Your task to perform on an android device: uninstall "VLC for Android" Image 0: 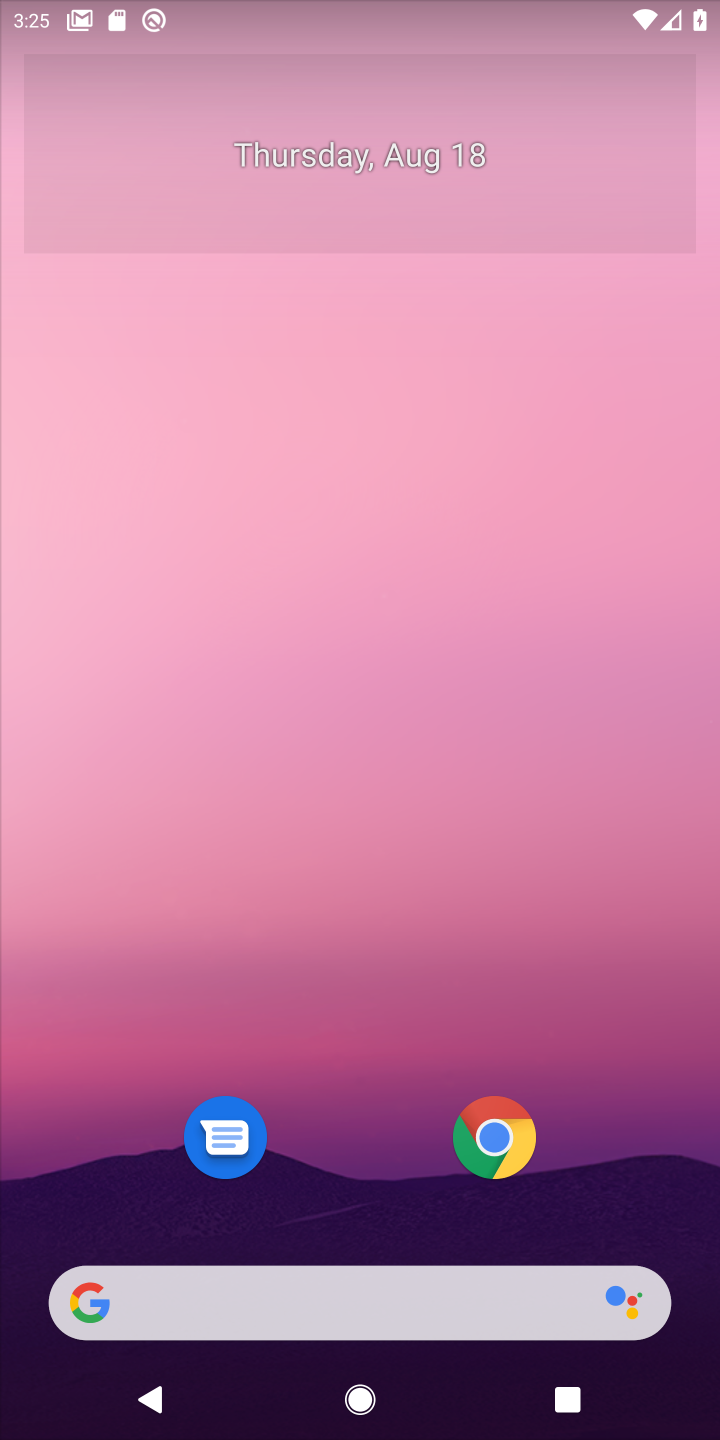
Step 0: drag from (355, 813) to (376, 163)
Your task to perform on an android device: uninstall "VLC for Android" Image 1: 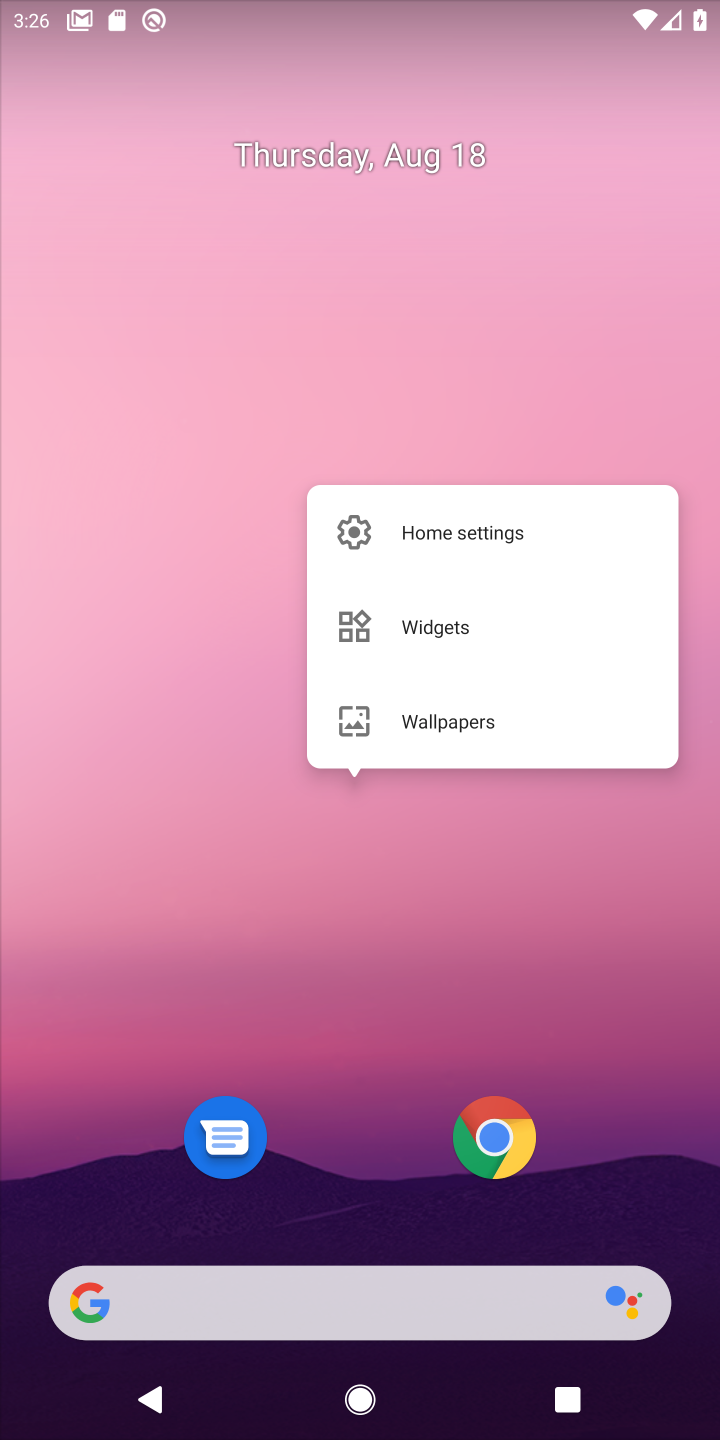
Step 1: drag from (369, 1125) to (369, 161)
Your task to perform on an android device: uninstall "VLC for Android" Image 2: 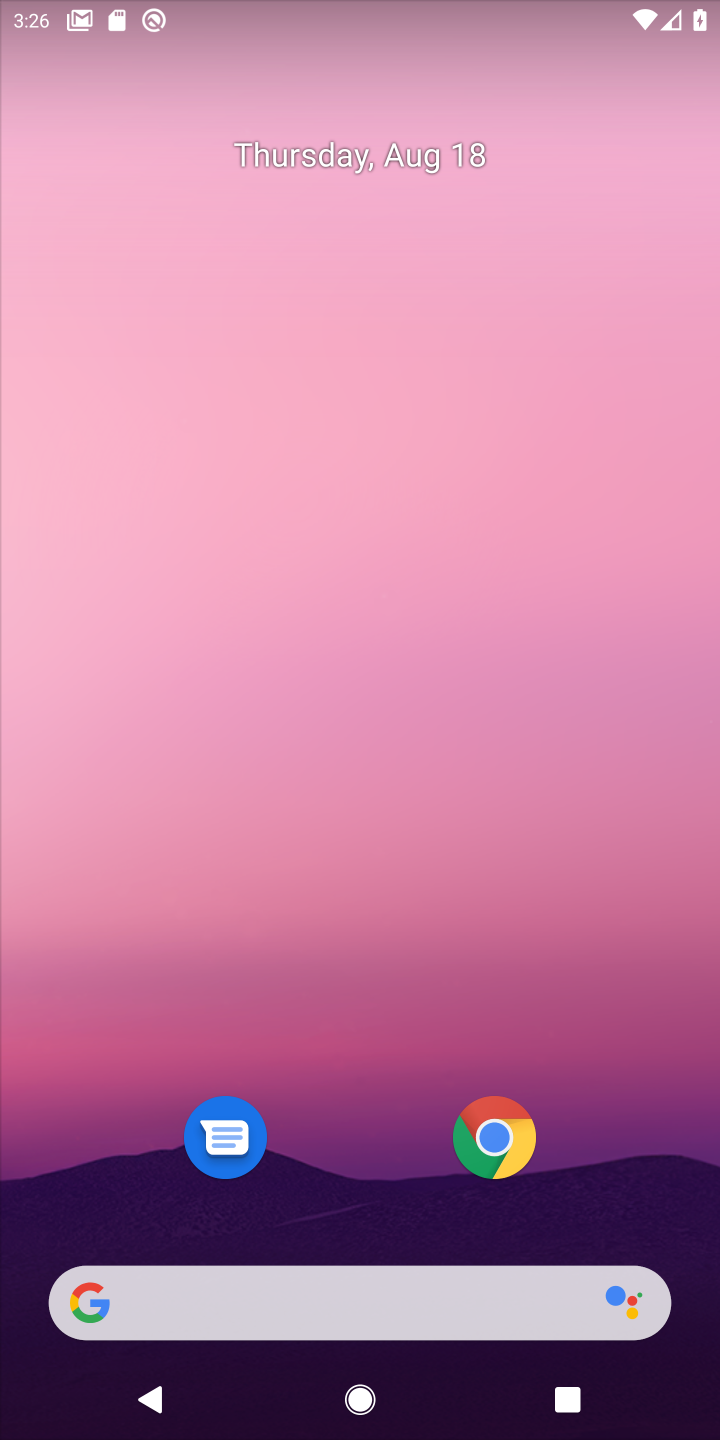
Step 2: drag from (378, 1073) to (417, 355)
Your task to perform on an android device: uninstall "VLC for Android" Image 3: 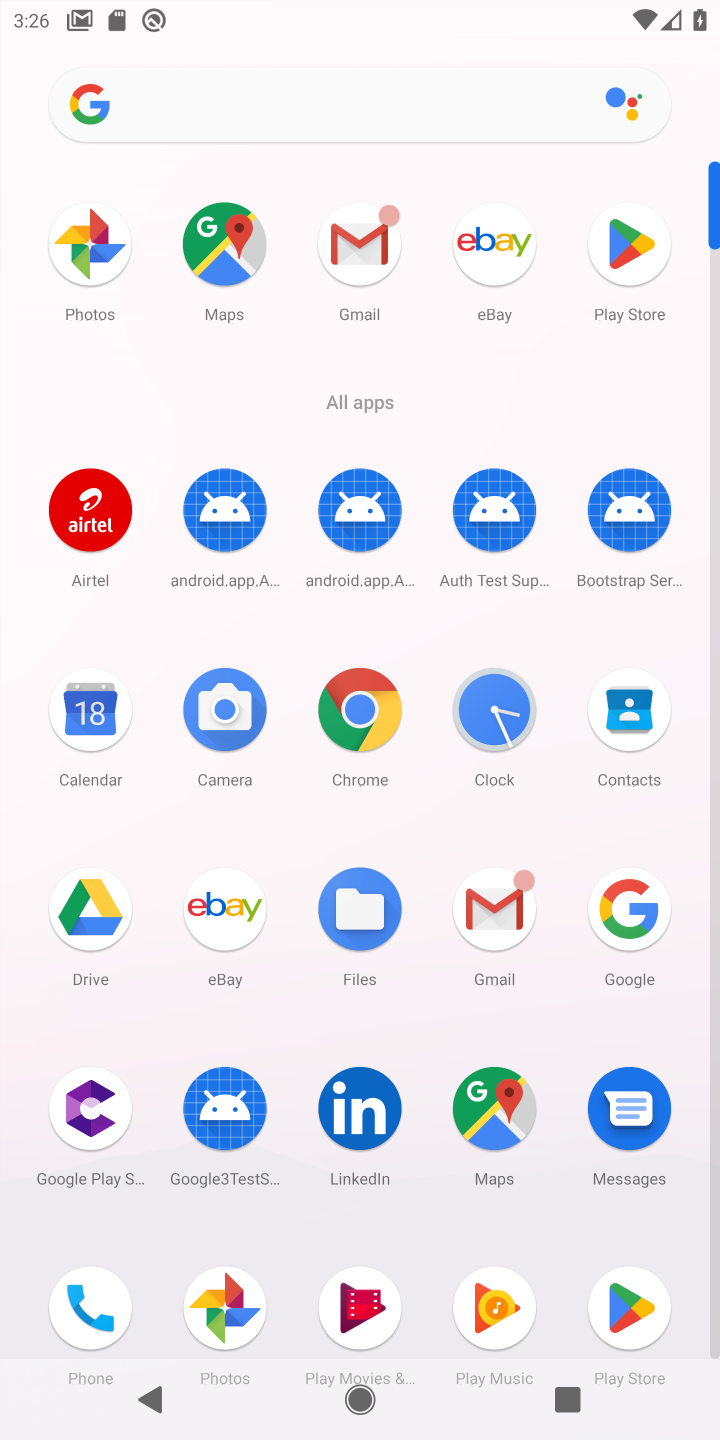
Step 3: click (614, 260)
Your task to perform on an android device: uninstall "VLC for Android" Image 4: 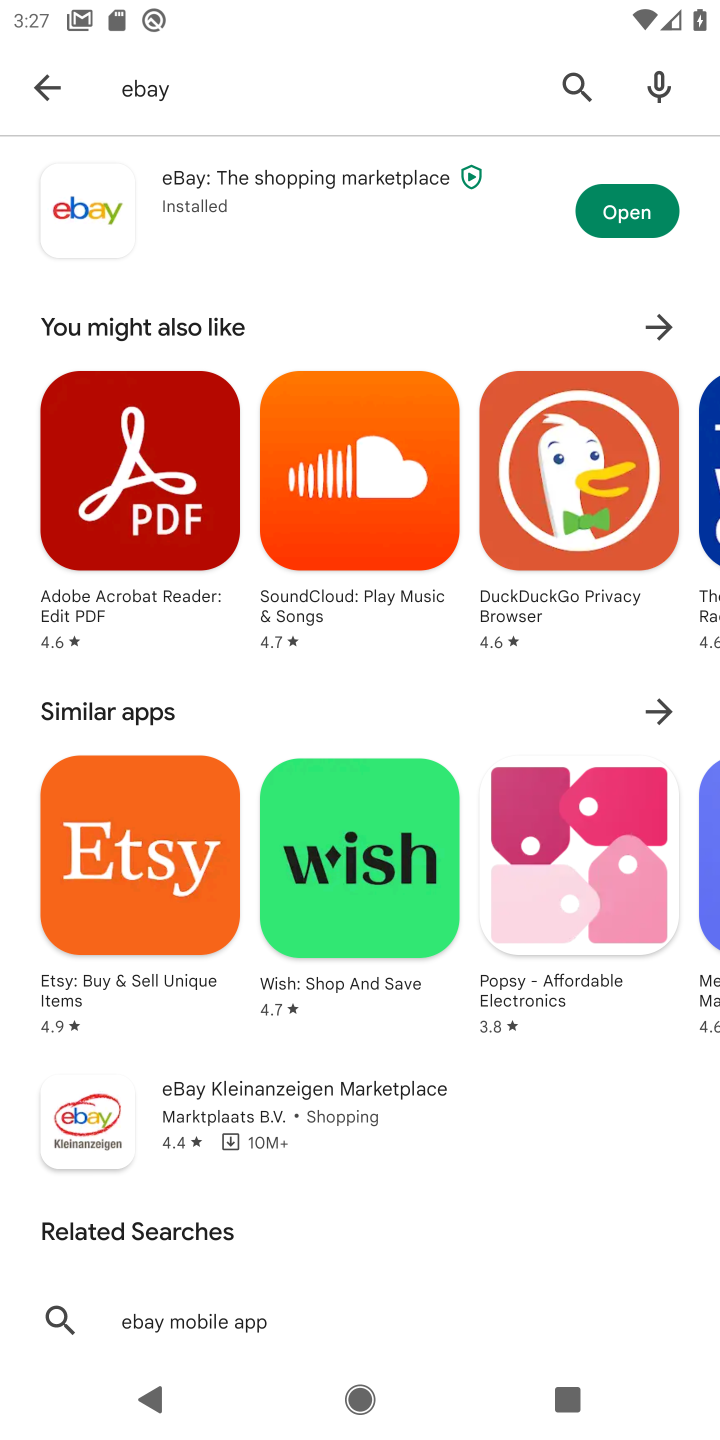
Step 4: click (53, 80)
Your task to perform on an android device: uninstall "VLC for Android" Image 5: 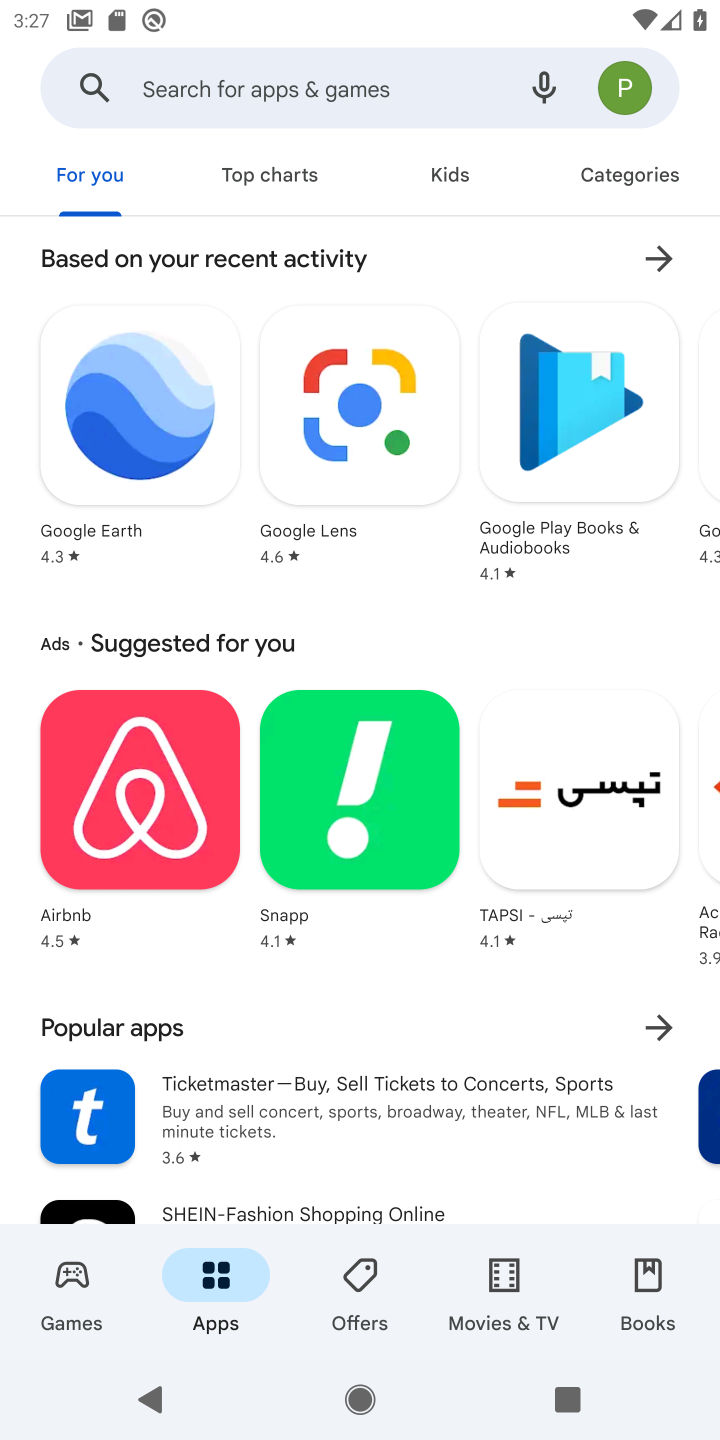
Step 5: click (246, 80)
Your task to perform on an android device: uninstall "VLC for Android" Image 6: 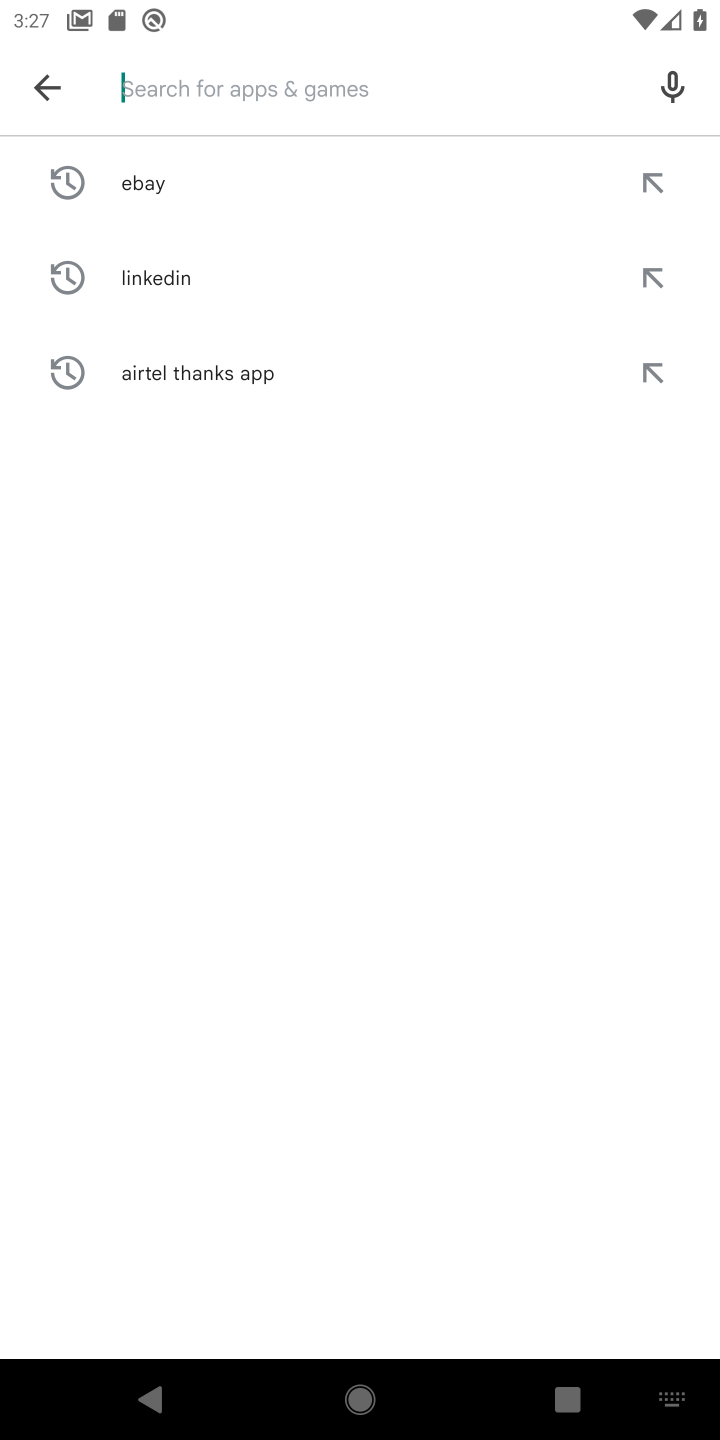
Step 6: type "VLC for Android"
Your task to perform on an android device: uninstall "VLC for Android" Image 7: 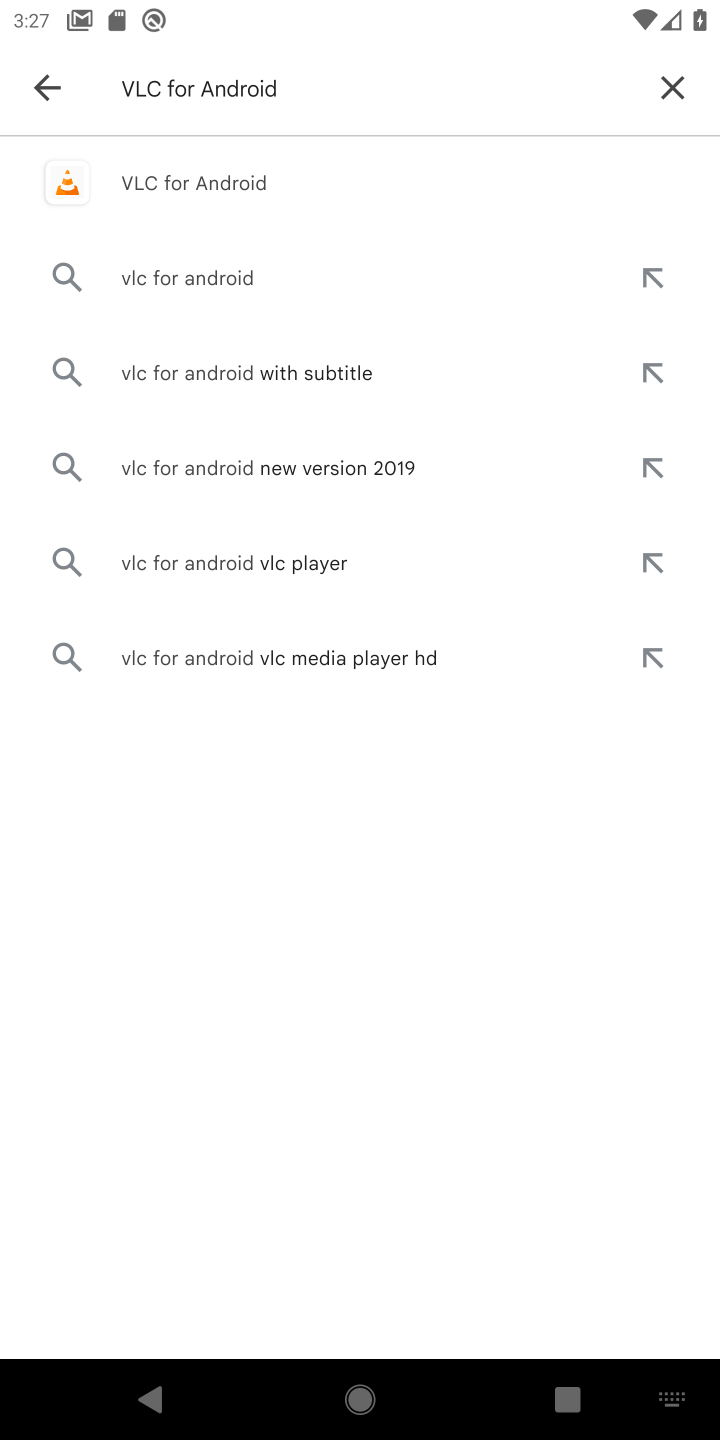
Step 7: click (207, 195)
Your task to perform on an android device: uninstall "VLC for Android" Image 8: 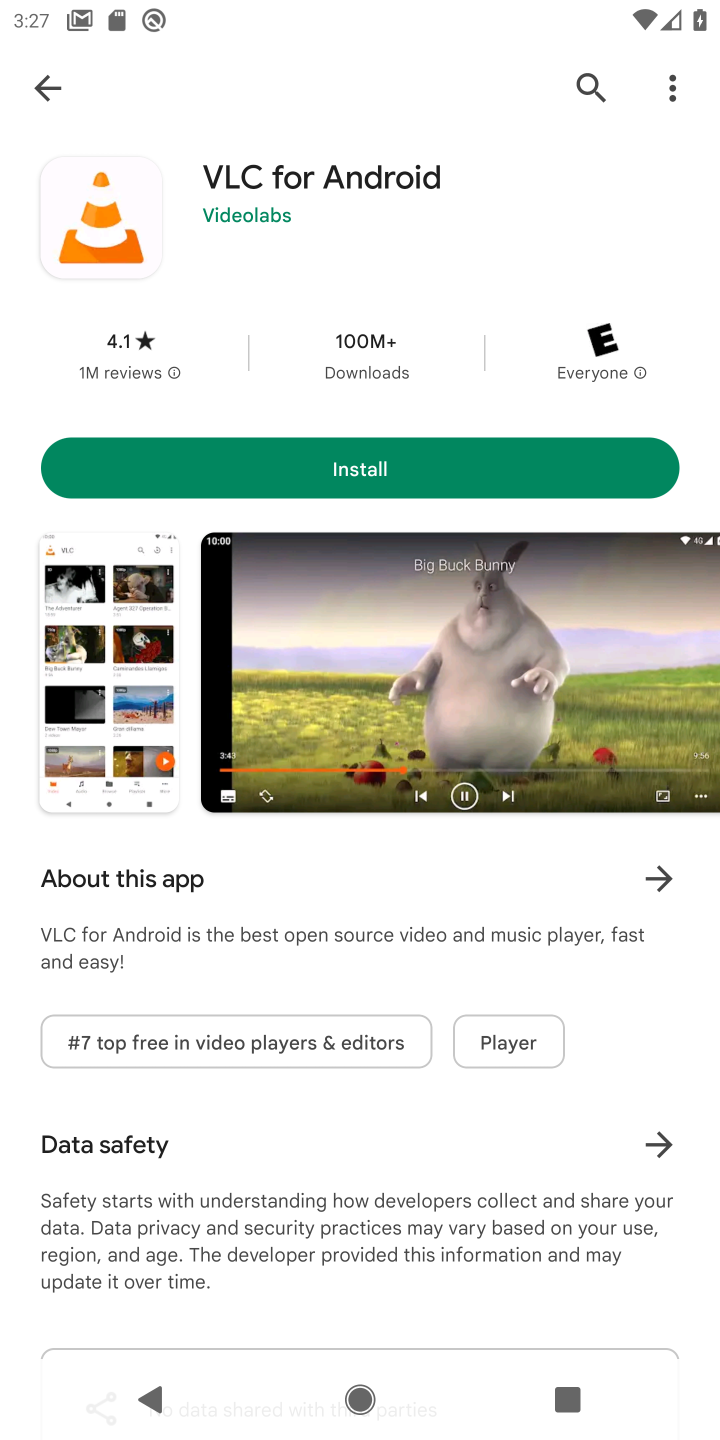
Step 8: task complete